Your task to perform on an android device: change timer sound Image 0: 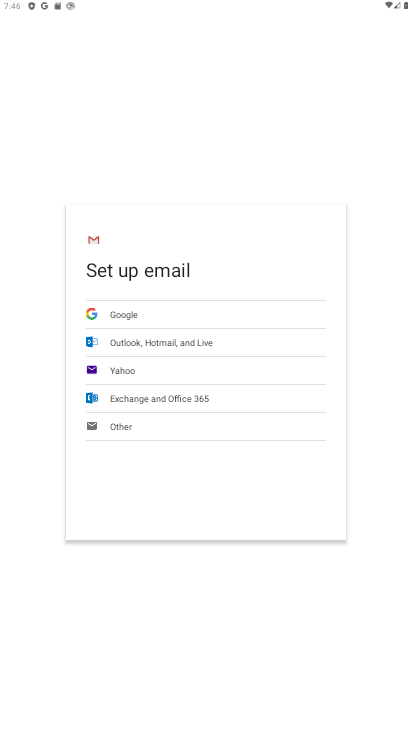
Step 0: press back button
Your task to perform on an android device: change timer sound Image 1: 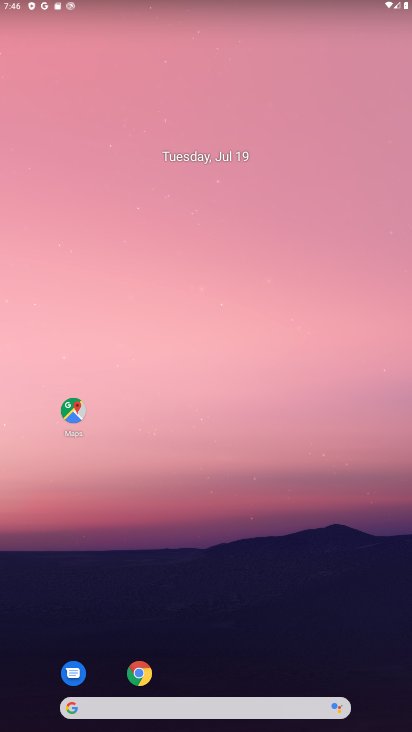
Step 1: drag from (238, 661) to (219, 264)
Your task to perform on an android device: change timer sound Image 2: 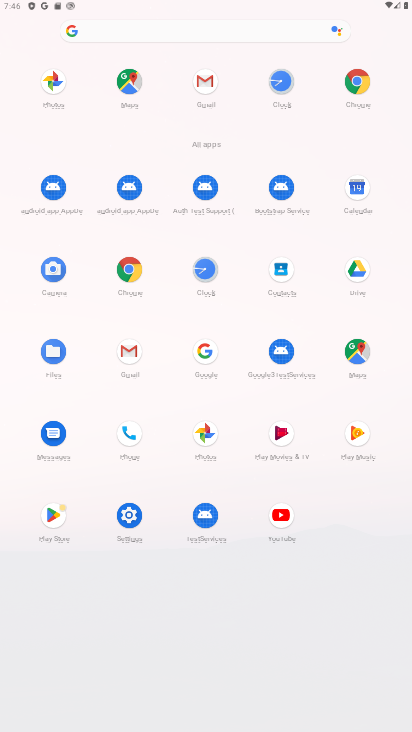
Step 2: click (206, 289)
Your task to perform on an android device: change timer sound Image 3: 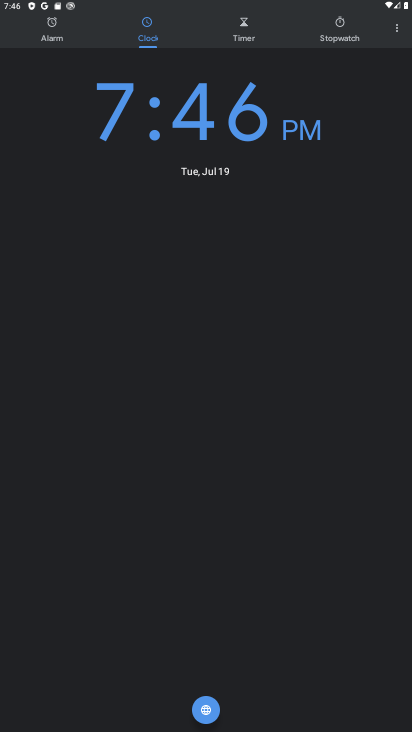
Step 3: click (393, 34)
Your task to perform on an android device: change timer sound Image 4: 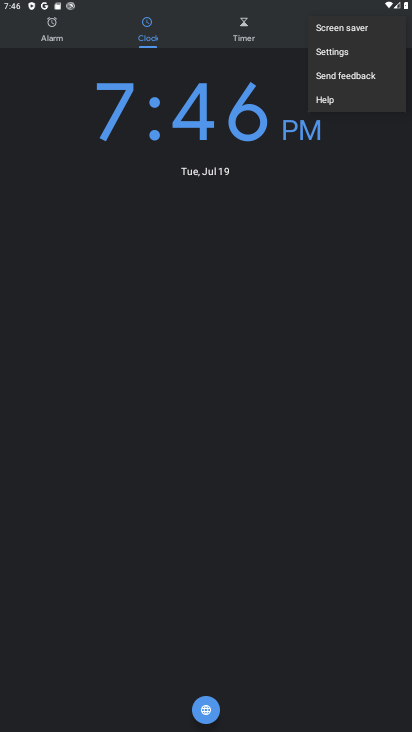
Step 4: click (359, 55)
Your task to perform on an android device: change timer sound Image 5: 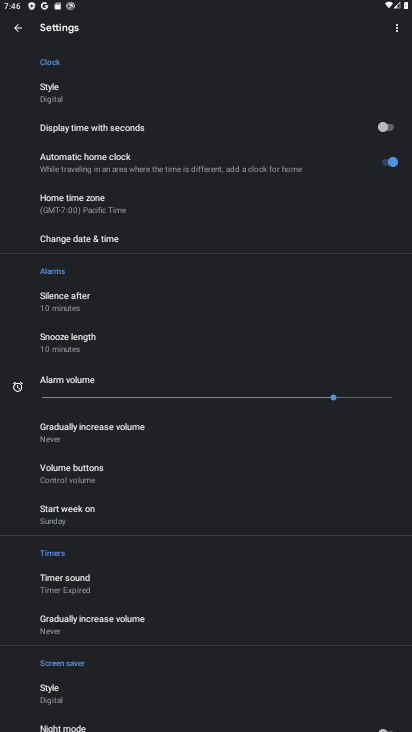
Step 5: click (89, 595)
Your task to perform on an android device: change timer sound Image 6: 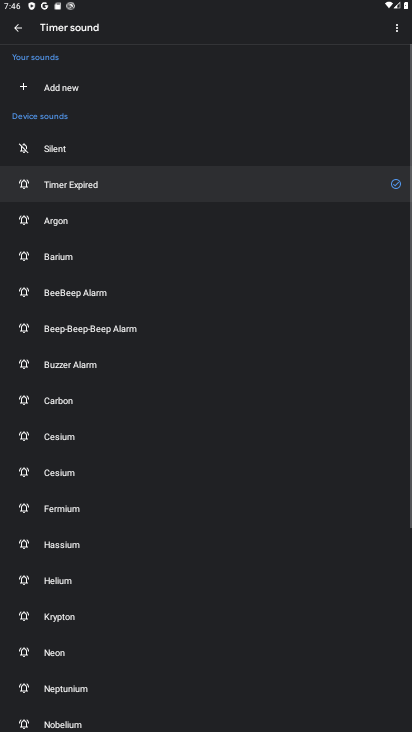
Step 6: click (120, 332)
Your task to perform on an android device: change timer sound Image 7: 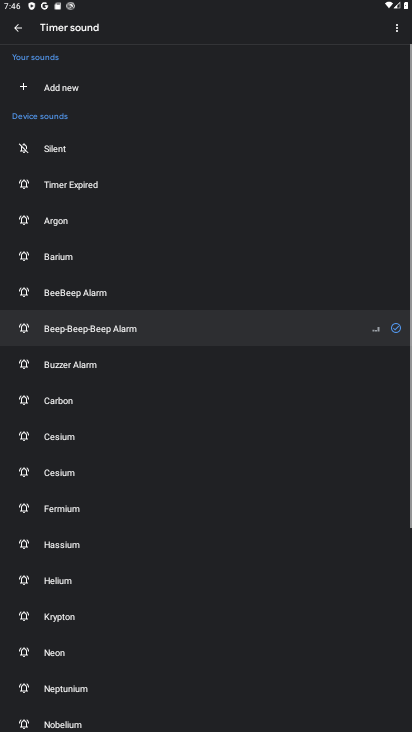
Step 7: task complete